Your task to perform on an android device: change the clock style Image 0: 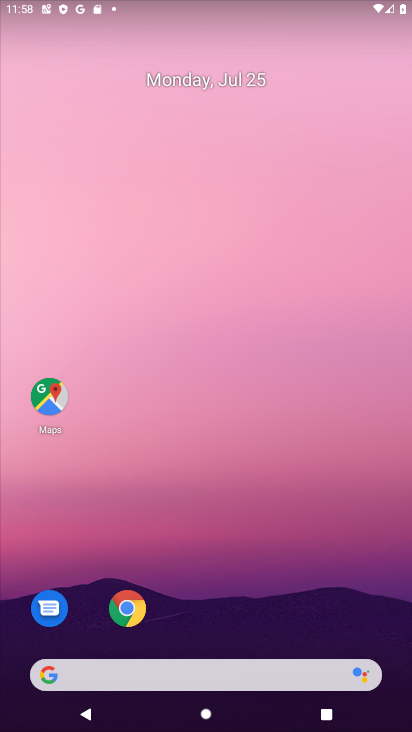
Step 0: drag from (275, 597) to (290, 84)
Your task to perform on an android device: change the clock style Image 1: 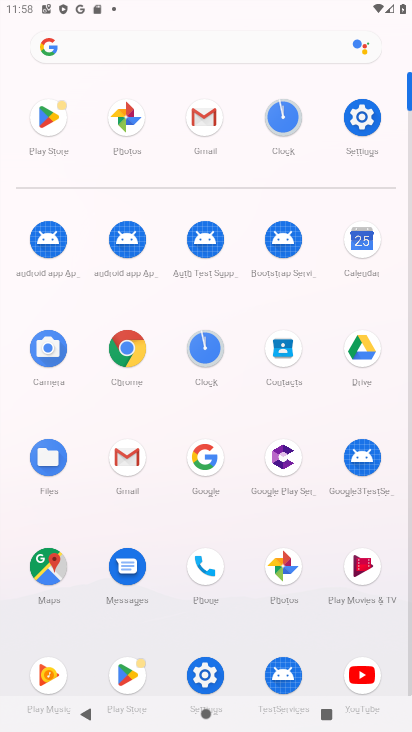
Step 1: click (201, 349)
Your task to perform on an android device: change the clock style Image 2: 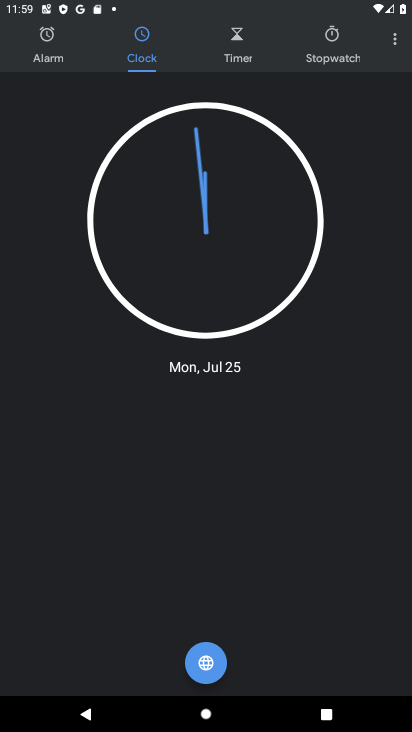
Step 2: click (390, 42)
Your task to perform on an android device: change the clock style Image 3: 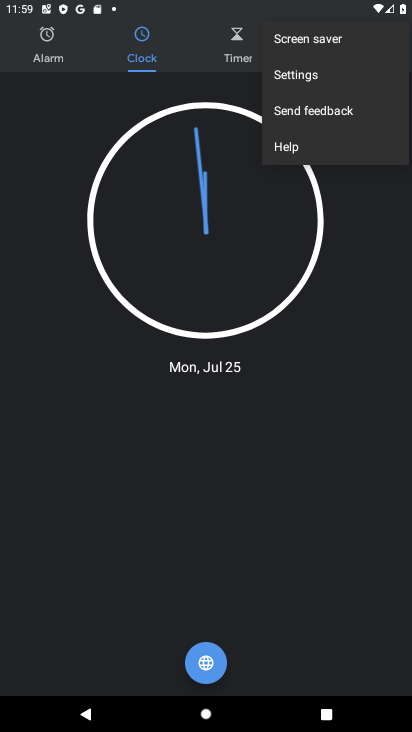
Step 3: click (317, 77)
Your task to perform on an android device: change the clock style Image 4: 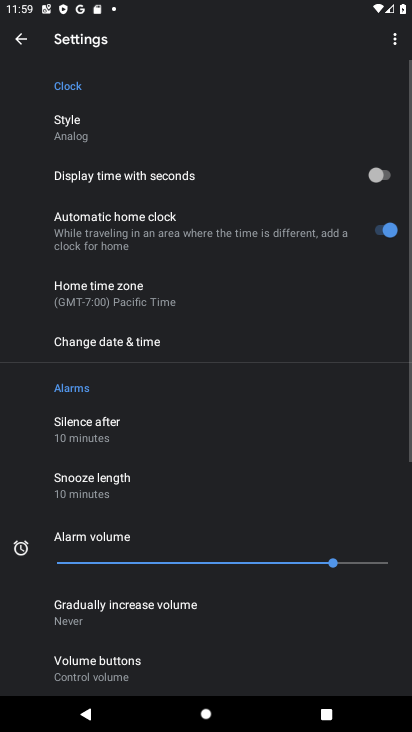
Step 4: click (100, 137)
Your task to perform on an android device: change the clock style Image 5: 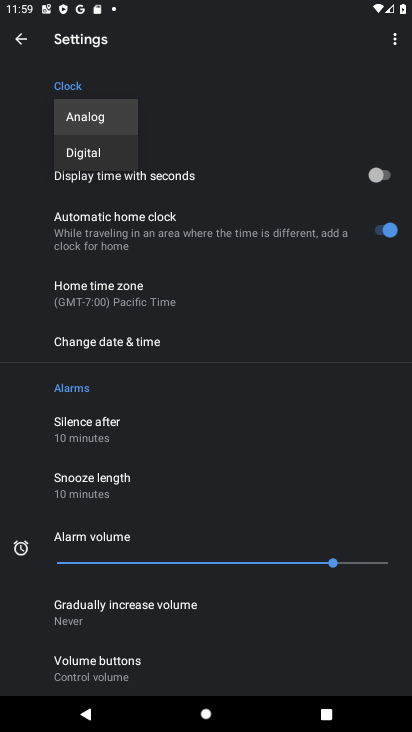
Step 5: click (102, 155)
Your task to perform on an android device: change the clock style Image 6: 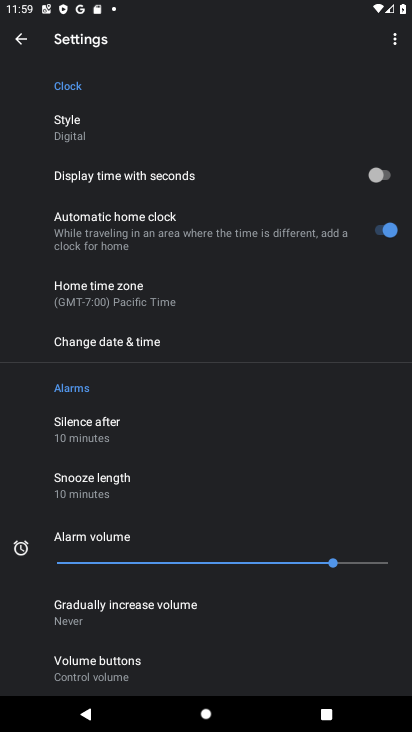
Step 6: task complete